Your task to perform on an android device: check out phone information Image 0: 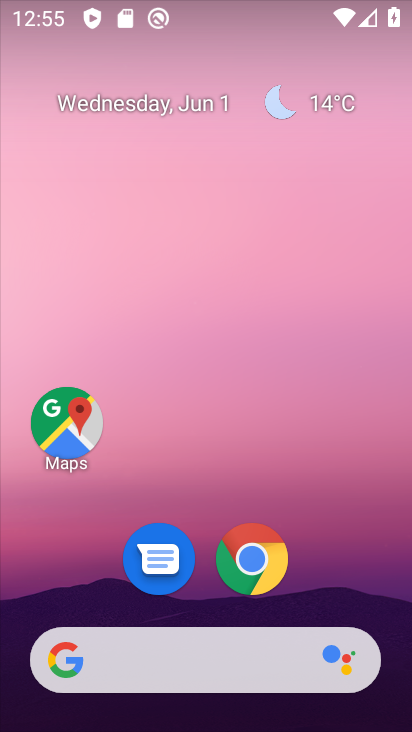
Step 0: drag from (390, 668) to (361, 154)
Your task to perform on an android device: check out phone information Image 1: 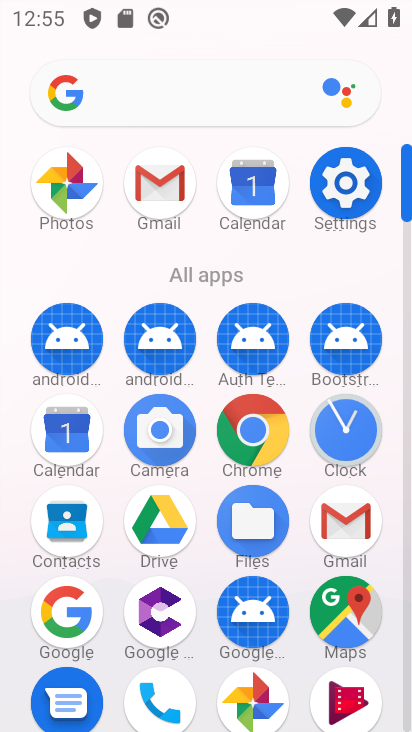
Step 1: click (353, 190)
Your task to perform on an android device: check out phone information Image 2: 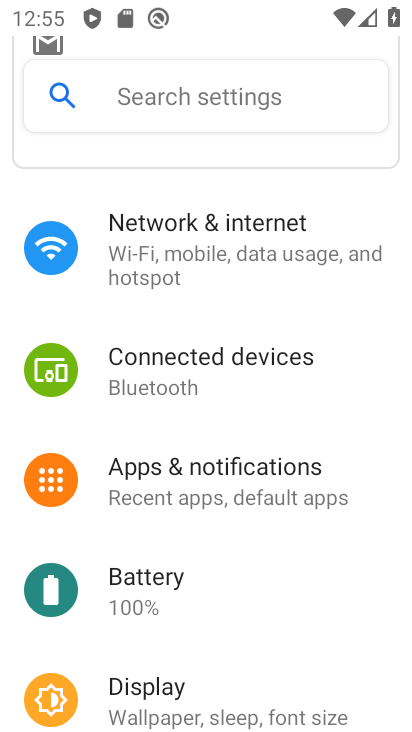
Step 2: drag from (356, 705) to (338, 192)
Your task to perform on an android device: check out phone information Image 3: 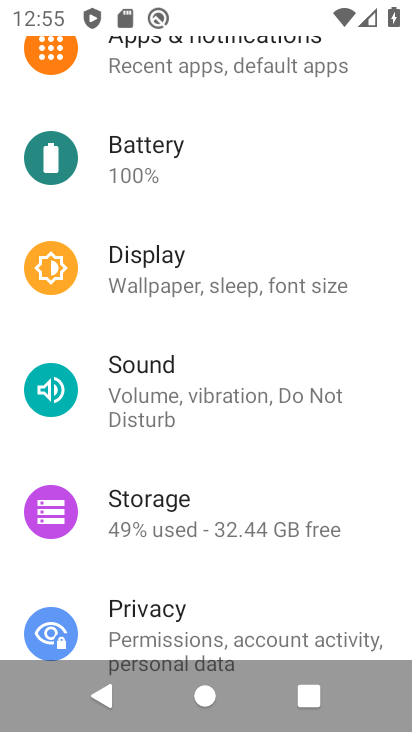
Step 3: drag from (300, 578) to (316, 231)
Your task to perform on an android device: check out phone information Image 4: 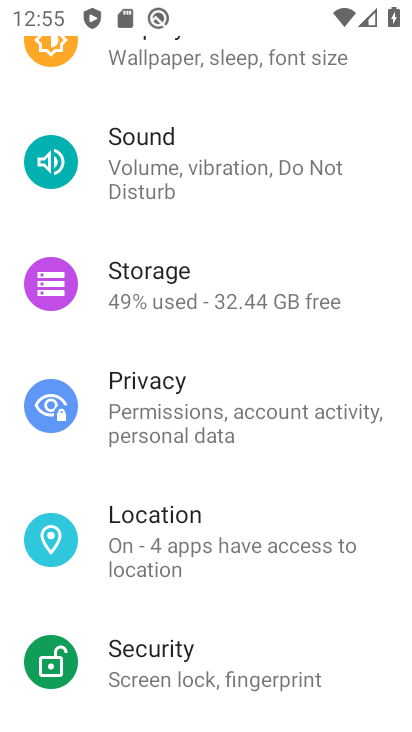
Step 4: drag from (332, 573) to (349, 129)
Your task to perform on an android device: check out phone information Image 5: 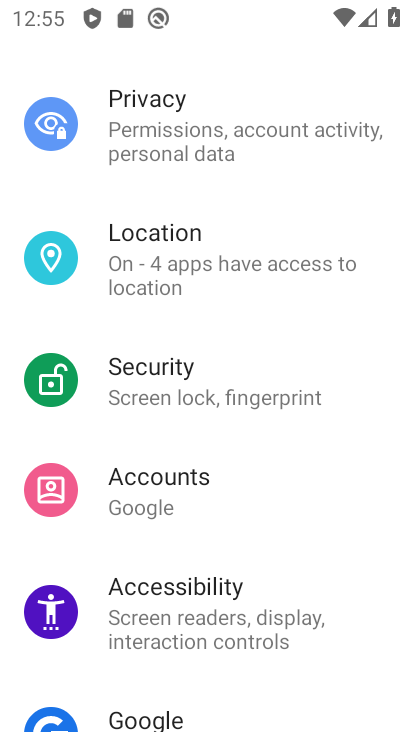
Step 5: drag from (304, 626) to (316, 149)
Your task to perform on an android device: check out phone information Image 6: 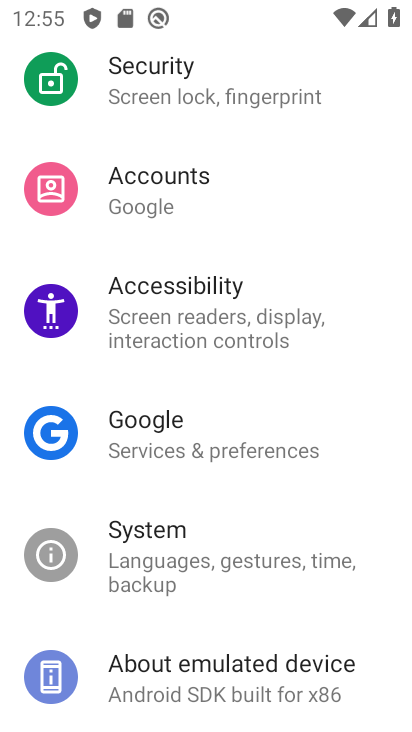
Step 6: click (258, 652)
Your task to perform on an android device: check out phone information Image 7: 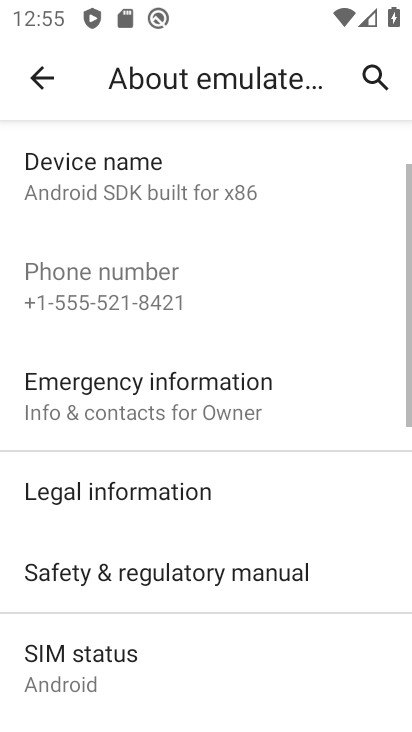
Step 7: task complete